Your task to perform on an android device: What's the weather? Image 0: 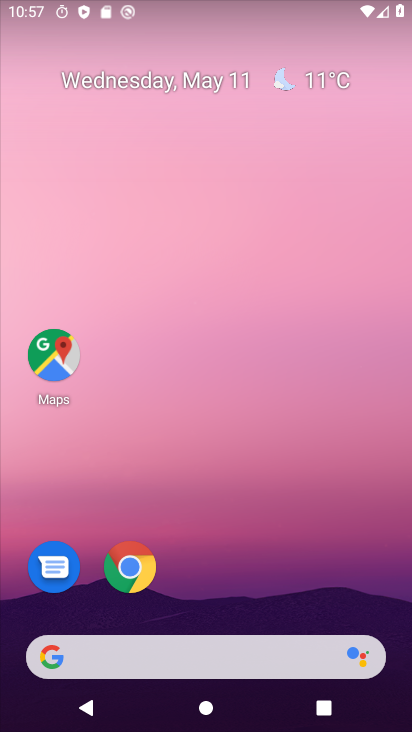
Step 0: drag from (268, 544) to (185, 44)
Your task to perform on an android device: What's the weather? Image 1: 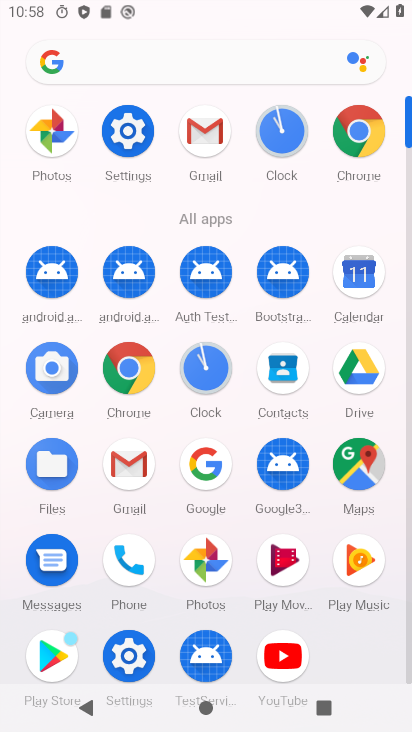
Step 1: press home button
Your task to perform on an android device: What's the weather? Image 2: 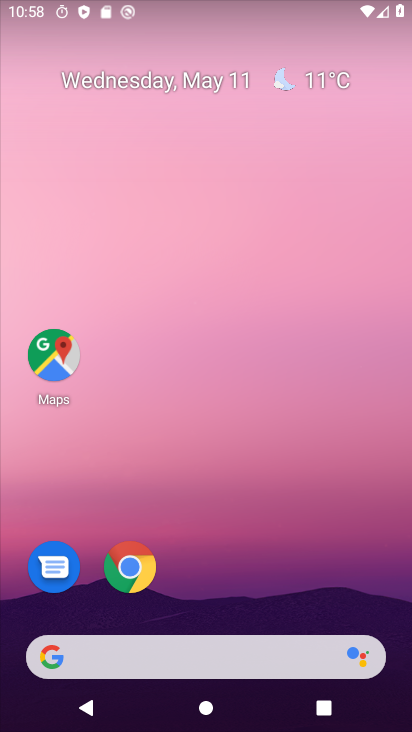
Step 2: click (315, 71)
Your task to perform on an android device: What's the weather? Image 3: 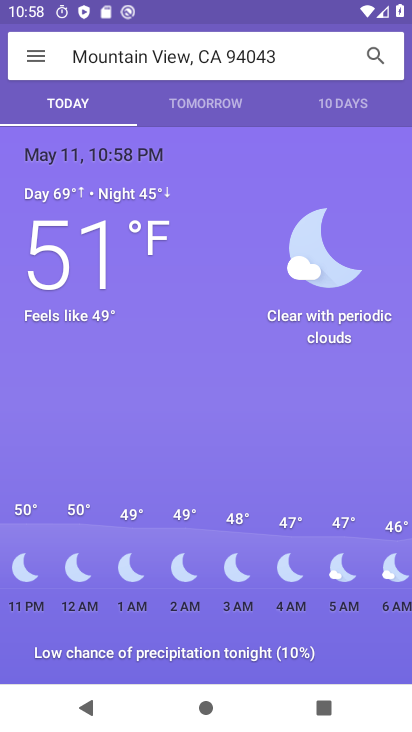
Step 3: task complete